Your task to perform on an android device: refresh tabs in the chrome app Image 0: 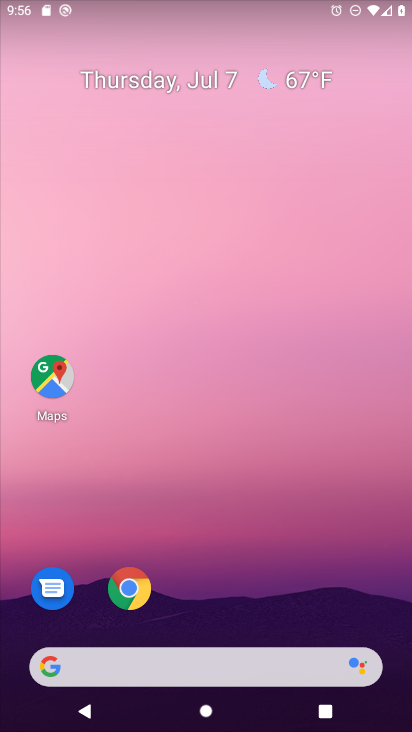
Step 0: click (127, 591)
Your task to perform on an android device: refresh tabs in the chrome app Image 1: 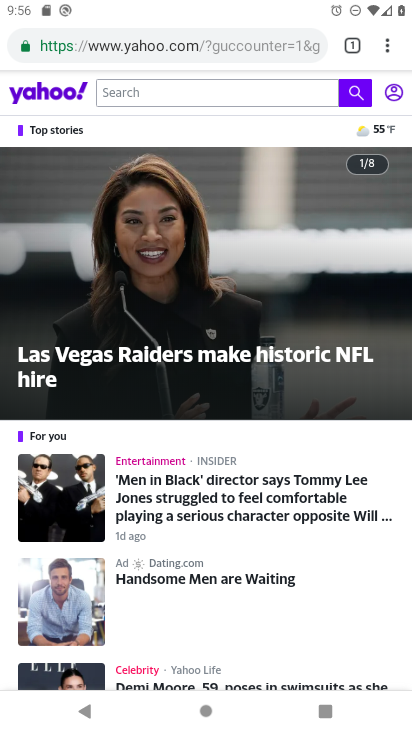
Step 1: click (388, 45)
Your task to perform on an android device: refresh tabs in the chrome app Image 2: 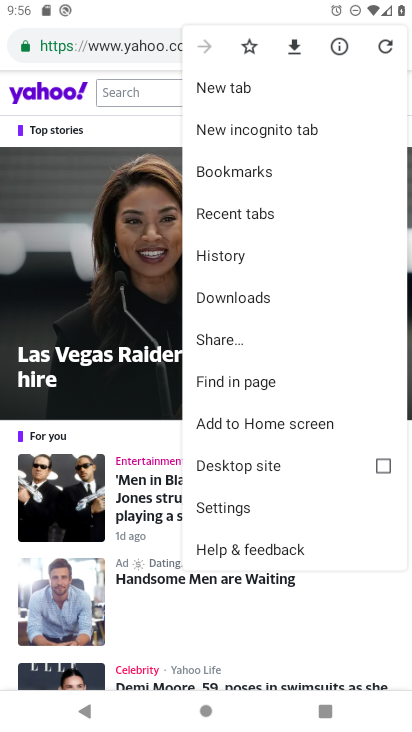
Step 2: click (388, 45)
Your task to perform on an android device: refresh tabs in the chrome app Image 3: 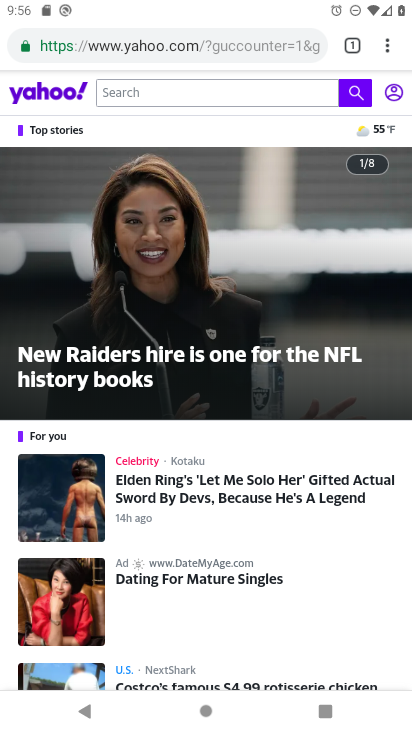
Step 3: task complete